Your task to perform on an android device: Open wifi settings Image 0: 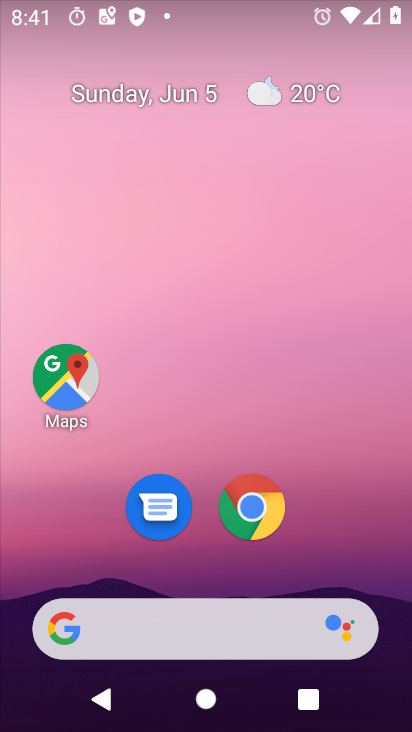
Step 0: drag from (351, 547) to (204, 47)
Your task to perform on an android device: Open wifi settings Image 1: 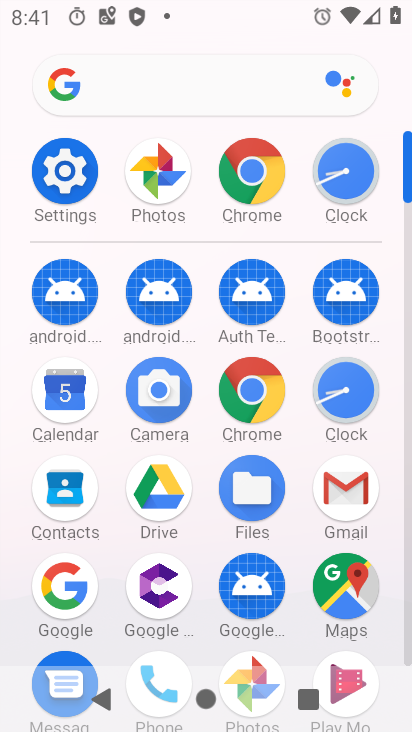
Step 1: click (58, 167)
Your task to perform on an android device: Open wifi settings Image 2: 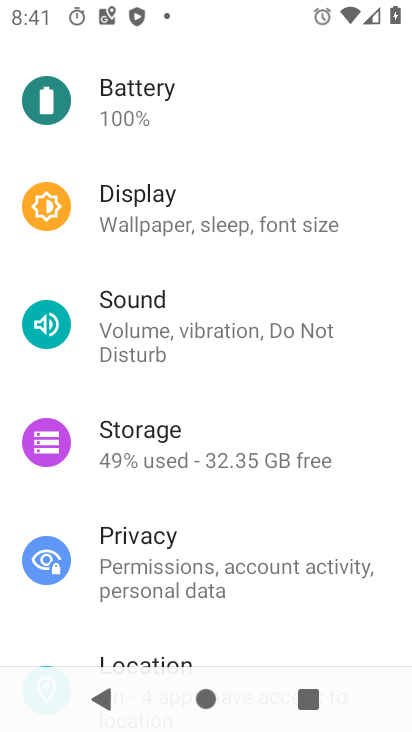
Step 2: drag from (306, 177) to (314, 573)
Your task to perform on an android device: Open wifi settings Image 3: 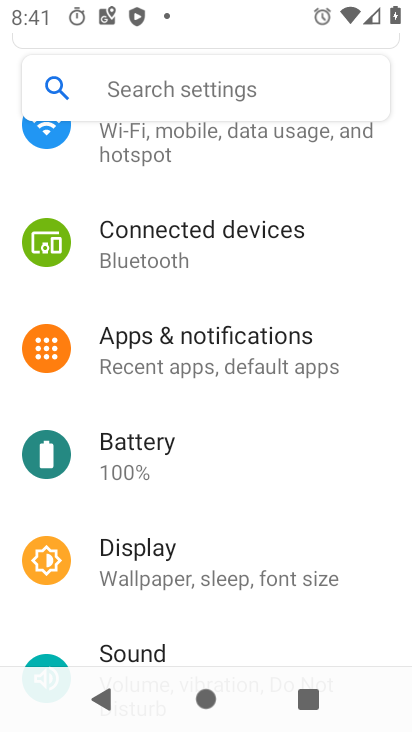
Step 3: drag from (273, 223) to (275, 634)
Your task to perform on an android device: Open wifi settings Image 4: 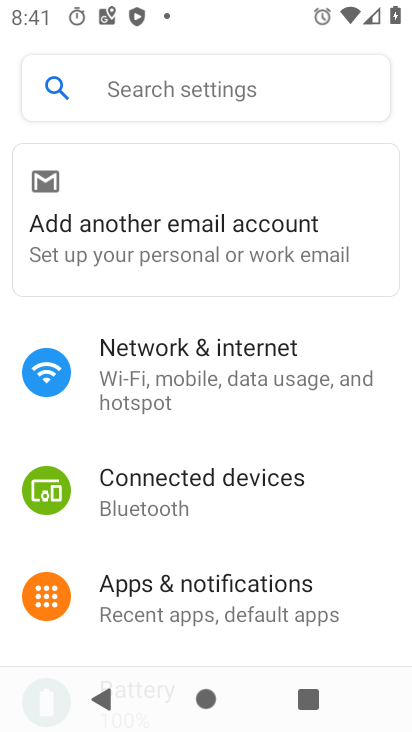
Step 4: click (220, 377)
Your task to perform on an android device: Open wifi settings Image 5: 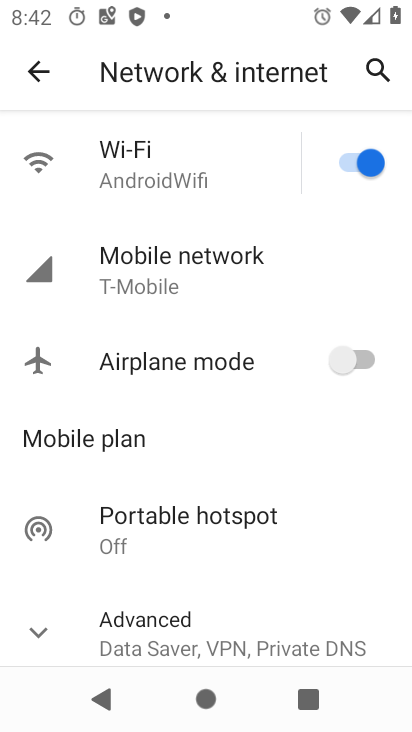
Step 5: click (44, 629)
Your task to perform on an android device: Open wifi settings Image 6: 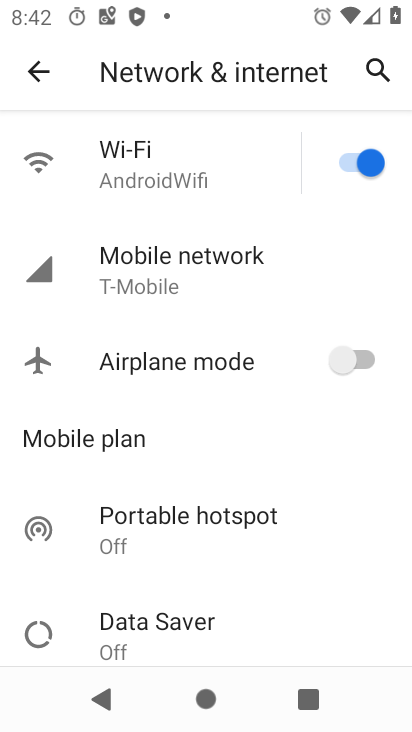
Step 6: click (202, 162)
Your task to perform on an android device: Open wifi settings Image 7: 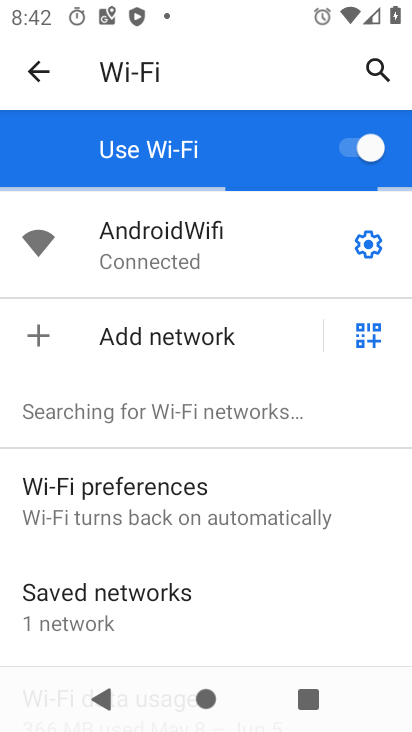
Step 7: task complete